Your task to perform on an android device: change notifications settings Image 0: 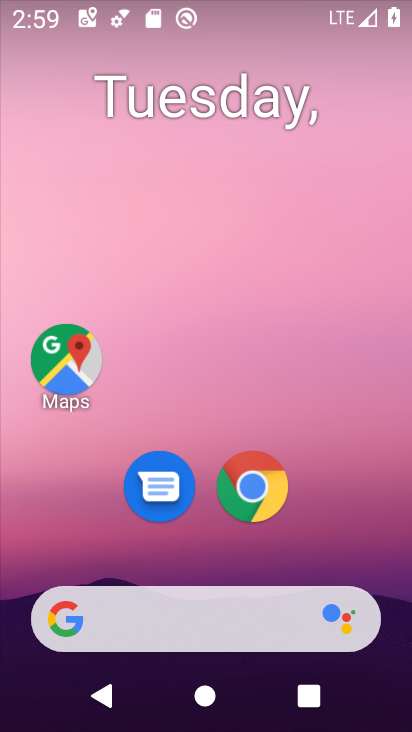
Step 0: drag from (219, 551) to (211, 62)
Your task to perform on an android device: change notifications settings Image 1: 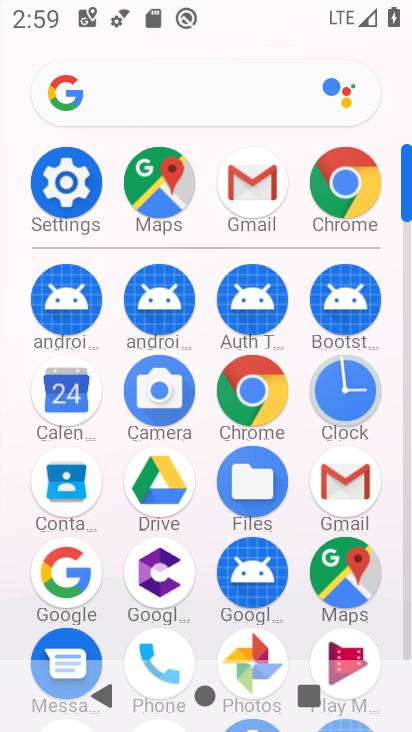
Step 1: click (70, 183)
Your task to perform on an android device: change notifications settings Image 2: 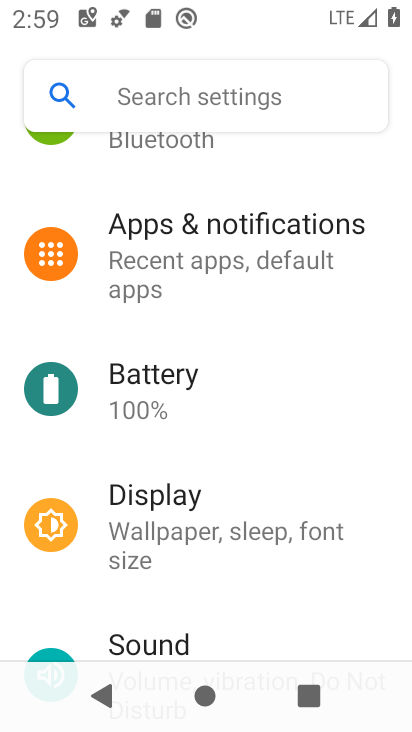
Step 2: click (228, 502)
Your task to perform on an android device: change notifications settings Image 3: 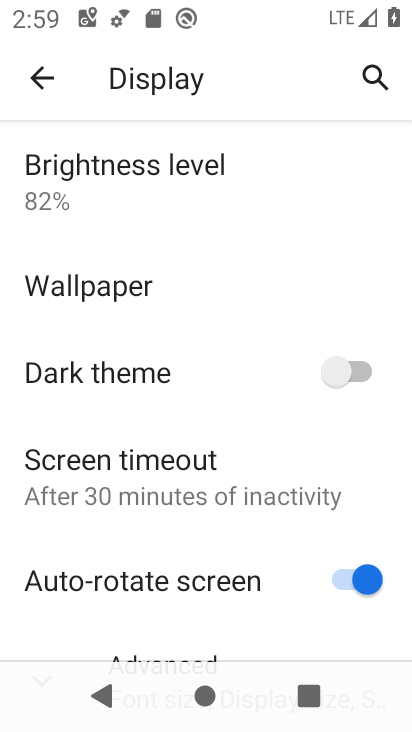
Step 3: click (49, 94)
Your task to perform on an android device: change notifications settings Image 4: 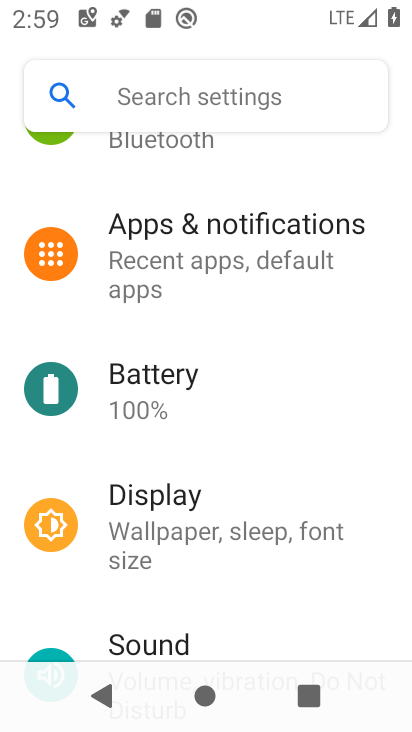
Step 4: click (229, 246)
Your task to perform on an android device: change notifications settings Image 5: 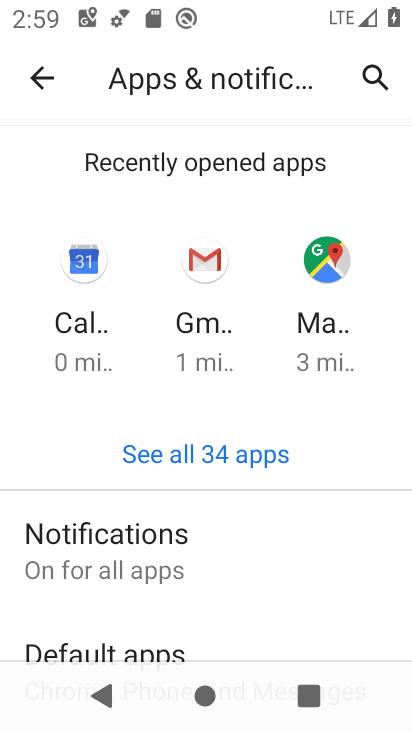
Step 5: click (213, 555)
Your task to perform on an android device: change notifications settings Image 6: 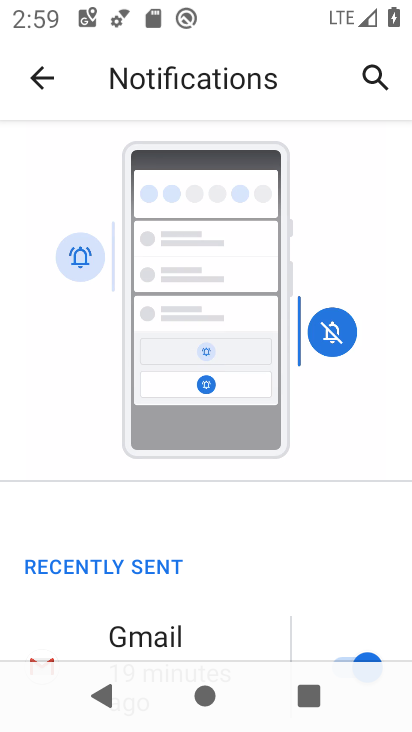
Step 6: drag from (210, 596) to (287, 409)
Your task to perform on an android device: change notifications settings Image 7: 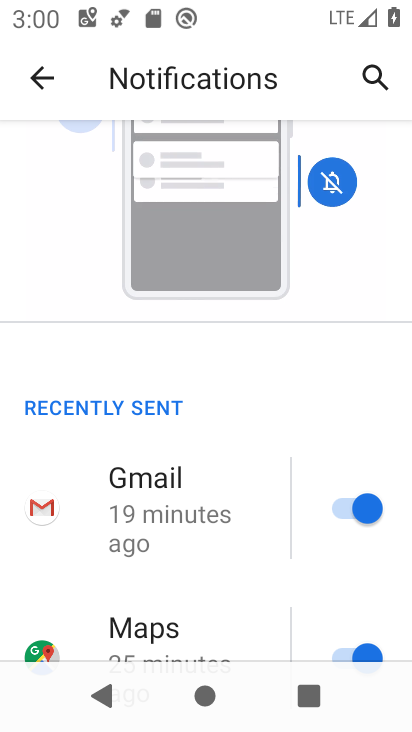
Step 7: drag from (235, 591) to (231, 281)
Your task to perform on an android device: change notifications settings Image 8: 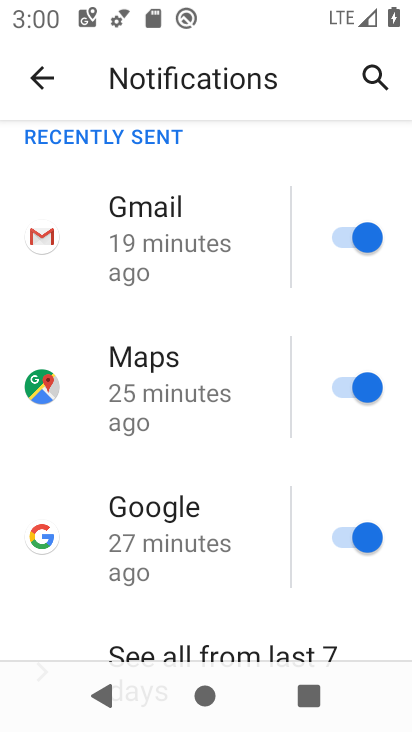
Step 8: click (352, 541)
Your task to perform on an android device: change notifications settings Image 9: 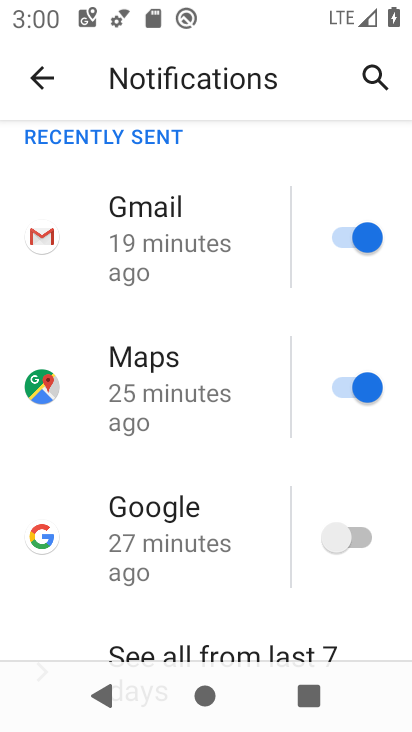
Step 9: click (355, 397)
Your task to perform on an android device: change notifications settings Image 10: 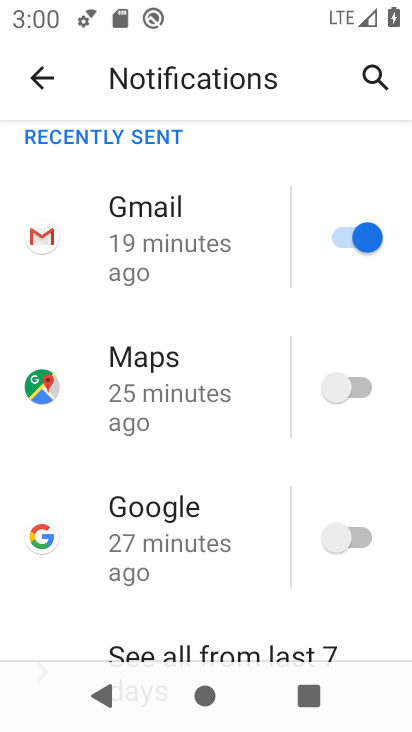
Step 10: task complete